Your task to perform on an android device: Open the stopwatch Image 0: 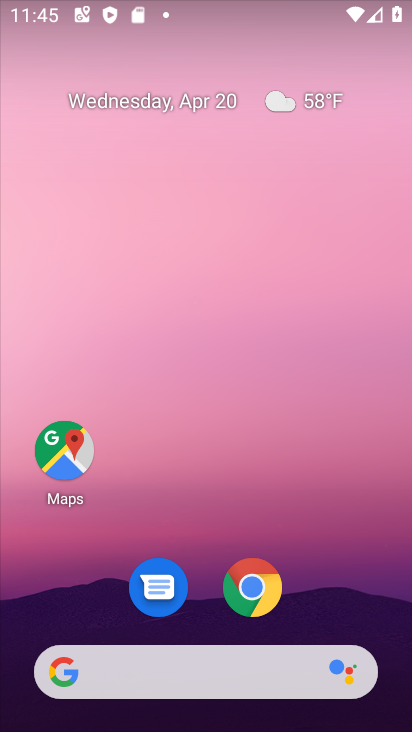
Step 0: drag from (211, 613) to (296, 8)
Your task to perform on an android device: Open the stopwatch Image 1: 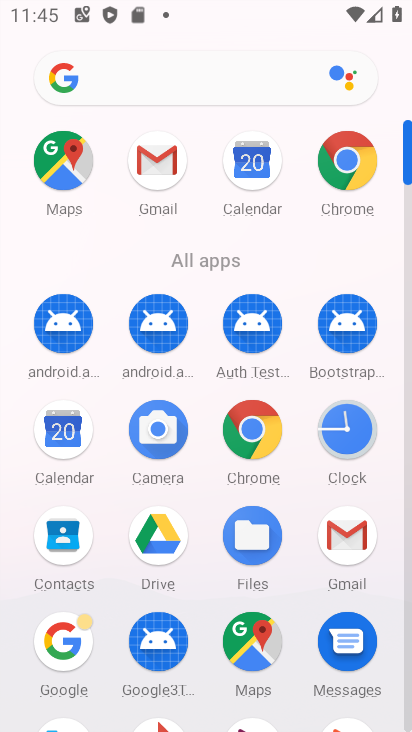
Step 1: click (343, 432)
Your task to perform on an android device: Open the stopwatch Image 2: 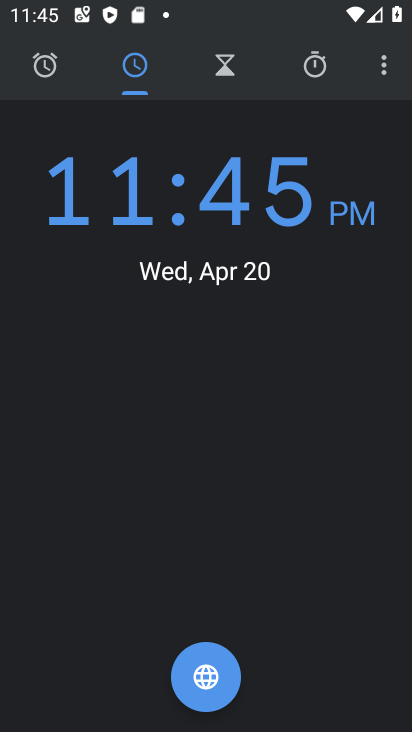
Step 2: click (319, 62)
Your task to perform on an android device: Open the stopwatch Image 3: 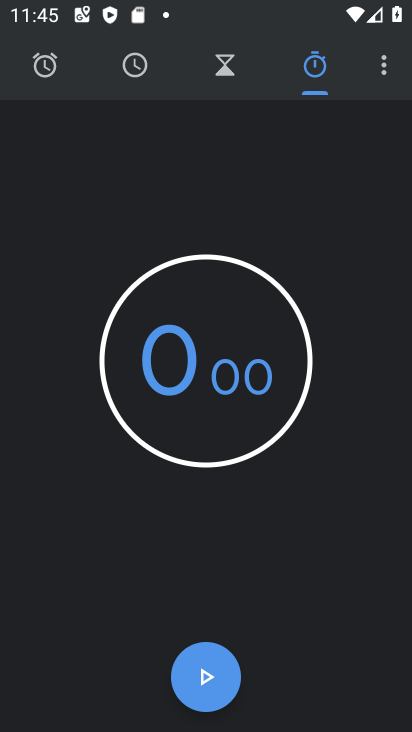
Step 3: click (195, 683)
Your task to perform on an android device: Open the stopwatch Image 4: 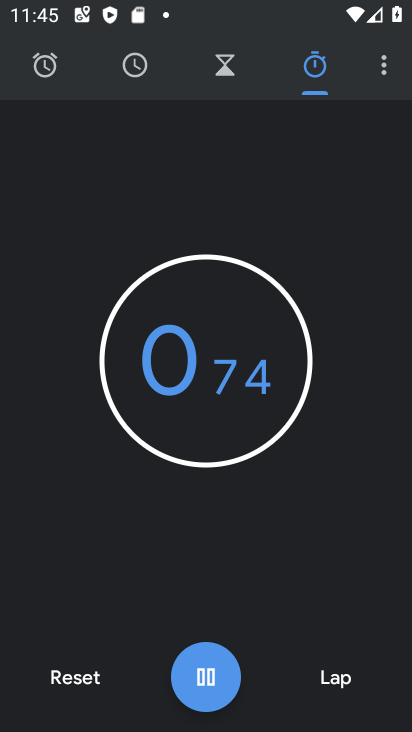
Step 4: task complete